Your task to perform on an android device: toggle priority inbox in the gmail app Image 0: 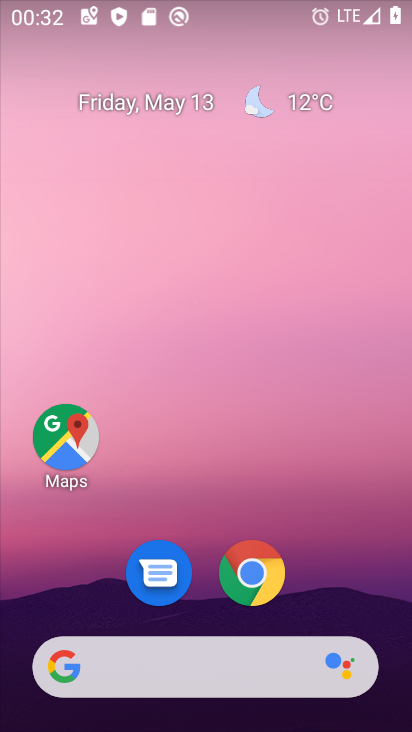
Step 0: drag from (271, 643) to (377, 0)
Your task to perform on an android device: toggle priority inbox in the gmail app Image 1: 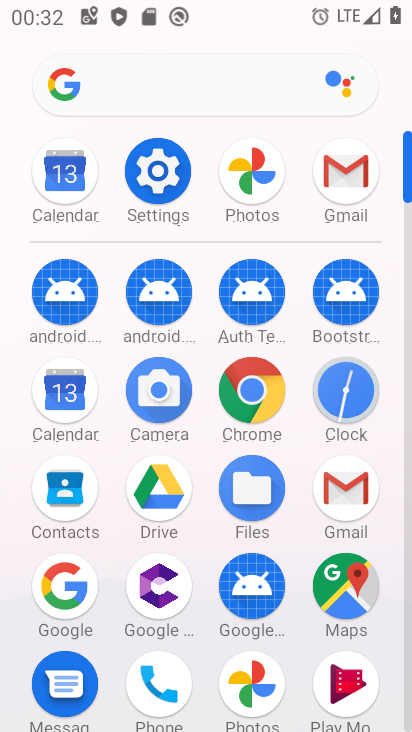
Step 1: click (334, 181)
Your task to perform on an android device: toggle priority inbox in the gmail app Image 2: 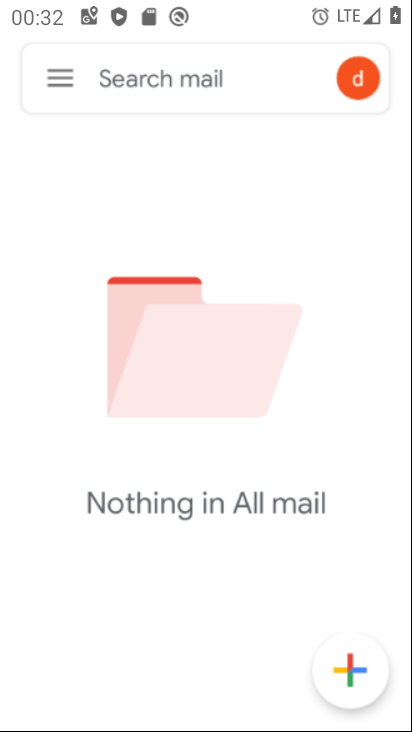
Step 2: click (70, 85)
Your task to perform on an android device: toggle priority inbox in the gmail app Image 3: 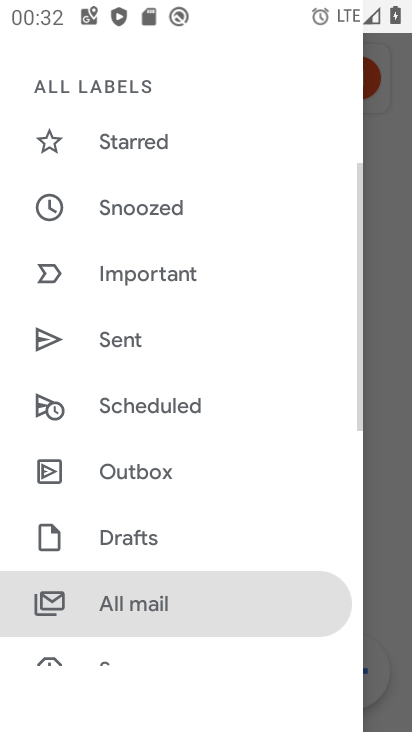
Step 3: drag from (151, 627) to (364, 28)
Your task to perform on an android device: toggle priority inbox in the gmail app Image 4: 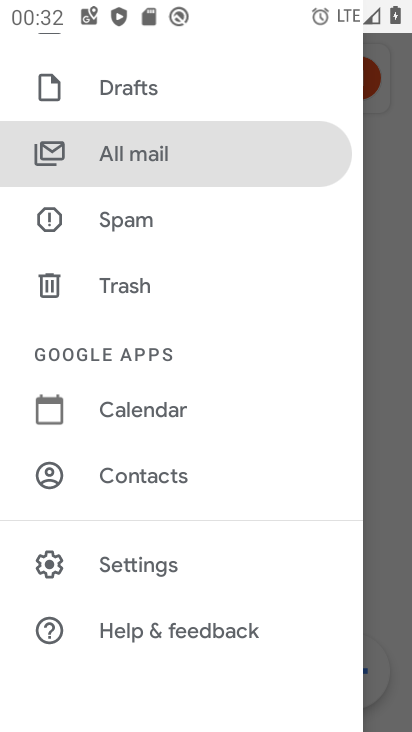
Step 4: click (133, 560)
Your task to perform on an android device: toggle priority inbox in the gmail app Image 5: 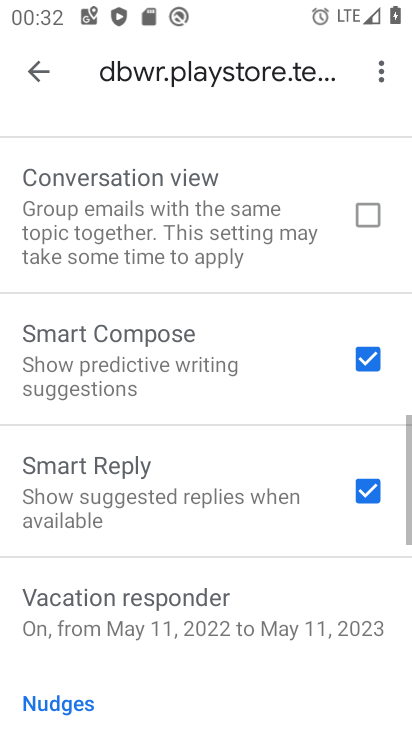
Step 5: drag from (211, 613) to (250, 112)
Your task to perform on an android device: toggle priority inbox in the gmail app Image 6: 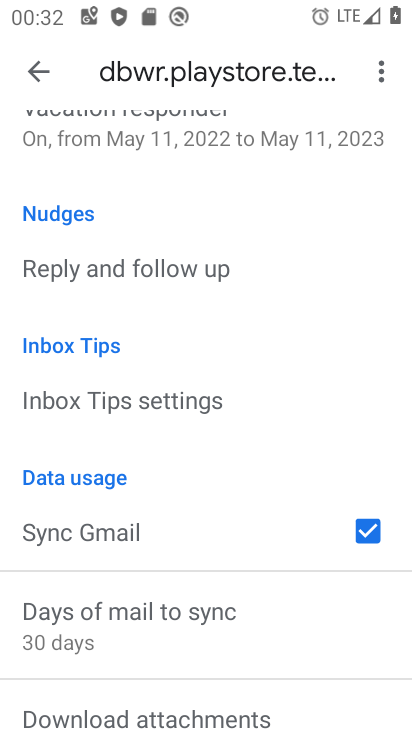
Step 6: drag from (177, 324) to (210, 721)
Your task to perform on an android device: toggle priority inbox in the gmail app Image 7: 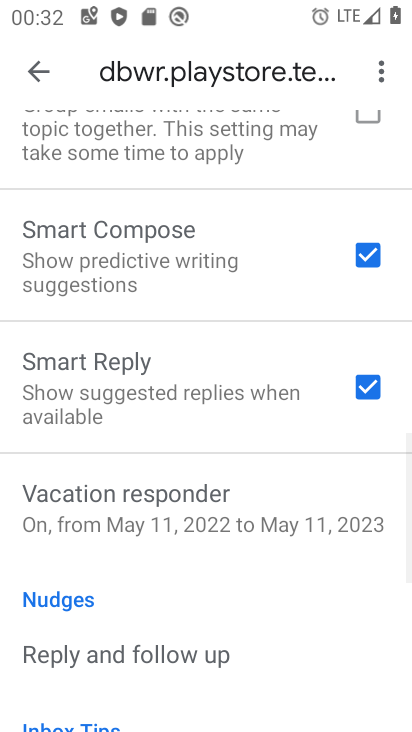
Step 7: drag from (183, 159) to (279, 728)
Your task to perform on an android device: toggle priority inbox in the gmail app Image 8: 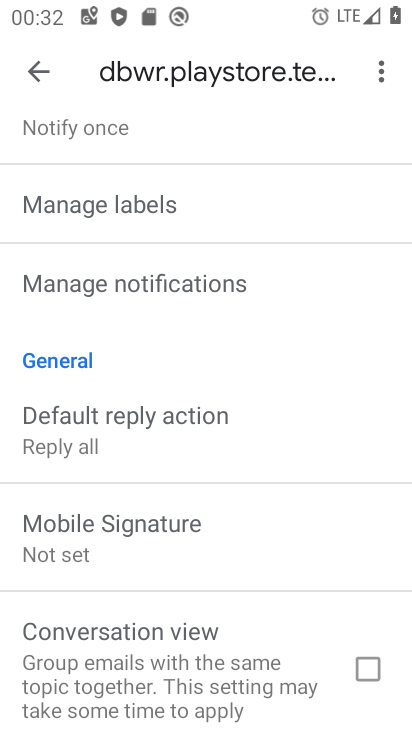
Step 8: drag from (279, 197) to (299, 670)
Your task to perform on an android device: toggle priority inbox in the gmail app Image 9: 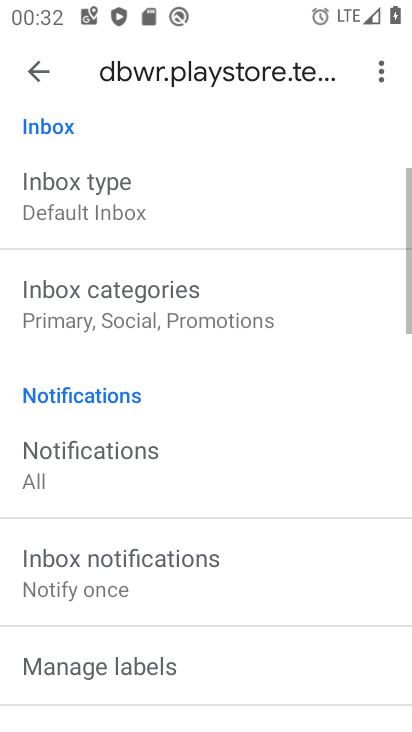
Step 9: click (127, 208)
Your task to perform on an android device: toggle priority inbox in the gmail app Image 10: 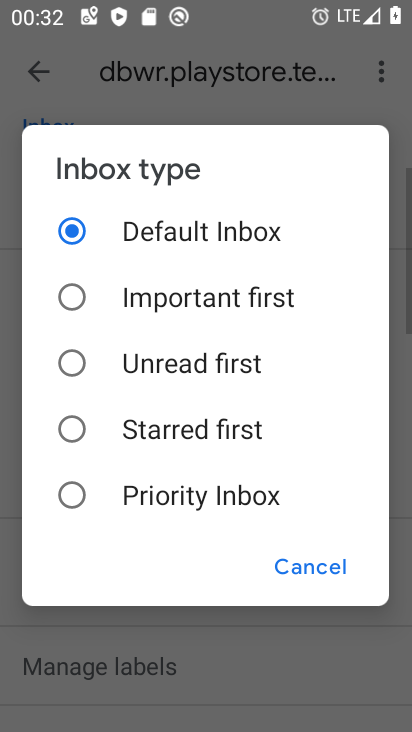
Step 10: click (205, 503)
Your task to perform on an android device: toggle priority inbox in the gmail app Image 11: 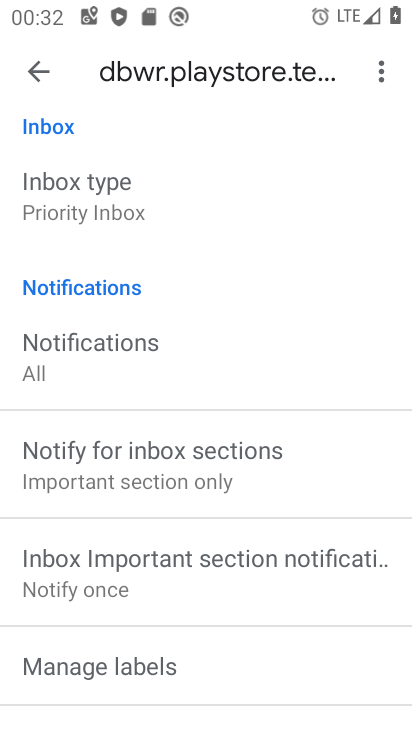
Step 11: task complete